Your task to perform on an android device: What's the weather going to be this weekend? Image 0: 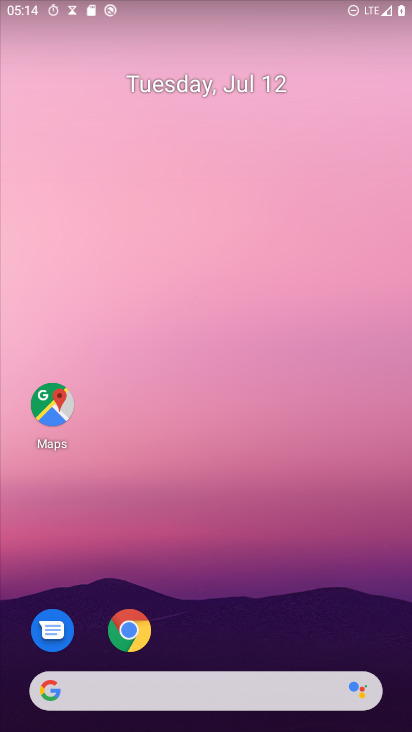
Step 0: drag from (326, 703) to (312, 22)
Your task to perform on an android device: What's the weather going to be this weekend? Image 1: 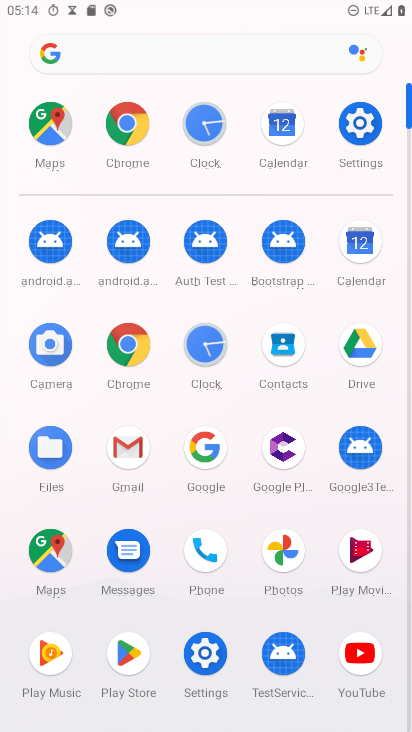
Step 1: click (121, 344)
Your task to perform on an android device: What's the weather going to be this weekend? Image 2: 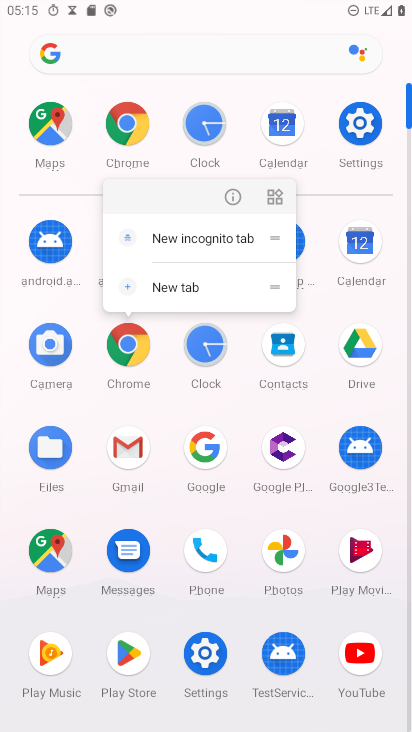
Step 2: click (146, 353)
Your task to perform on an android device: What's the weather going to be this weekend? Image 3: 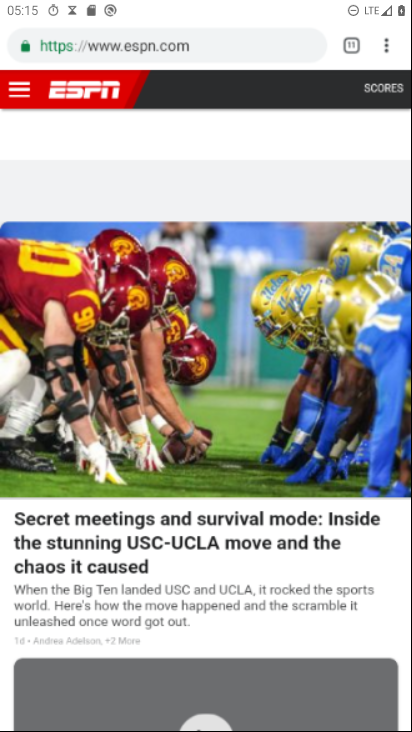
Step 3: click (199, 47)
Your task to perform on an android device: What's the weather going to be this weekend? Image 4: 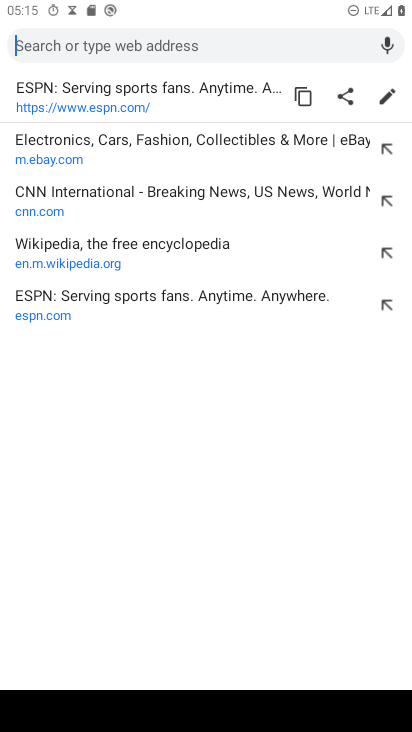
Step 4: type "weather going to be this weekend"
Your task to perform on an android device: What's the weather going to be this weekend? Image 5: 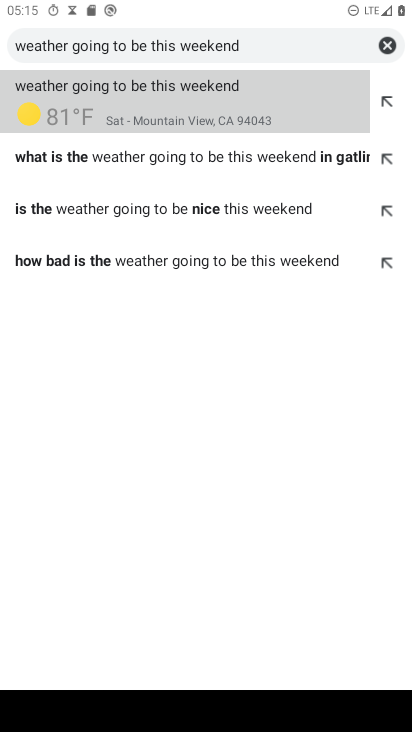
Step 5: click (182, 84)
Your task to perform on an android device: What's the weather going to be this weekend? Image 6: 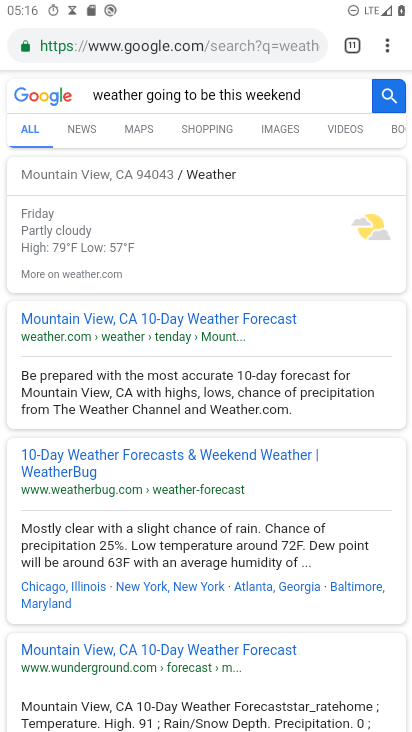
Step 6: task complete